Your task to perform on an android device: Show me productivity apps on the Play Store Image 0: 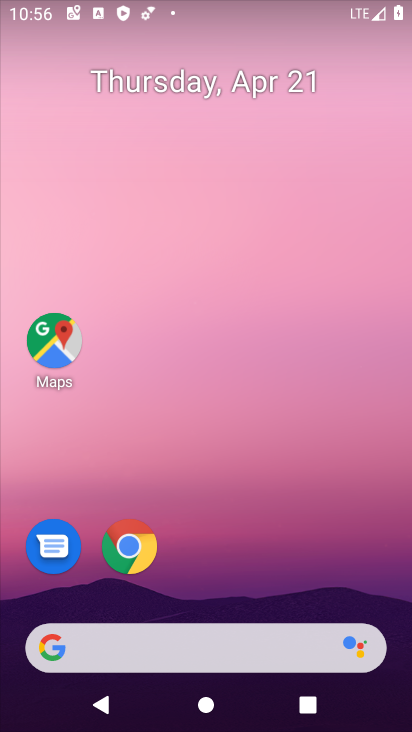
Step 0: drag from (378, 604) to (280, 73)
Your task to perform on an android device: Show me productivity apps on the Play Store Image 1: 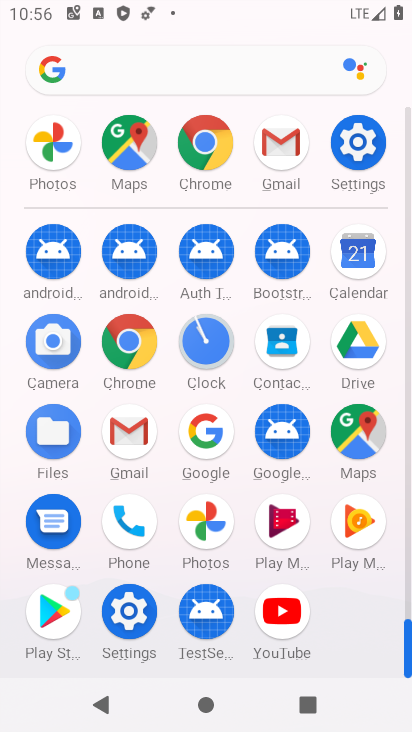
Step 1: click (54, 608)
Your task to perform on an android device: Show me productivity apps on the Play Store Image 2: 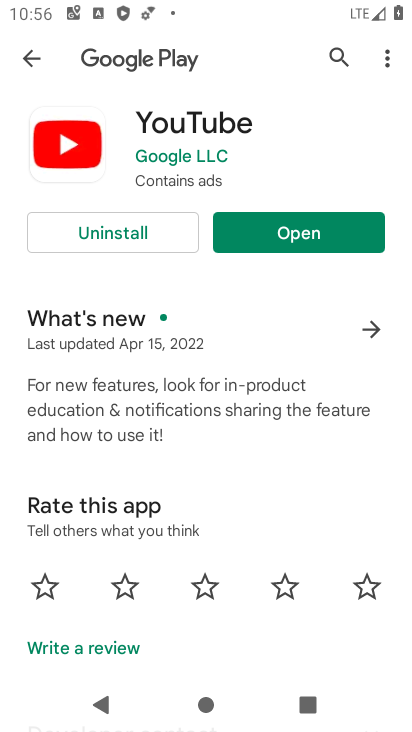
Step 2: press back button
Your task to perform on an android device: Show me productivity apps on the Play Store Image 3: 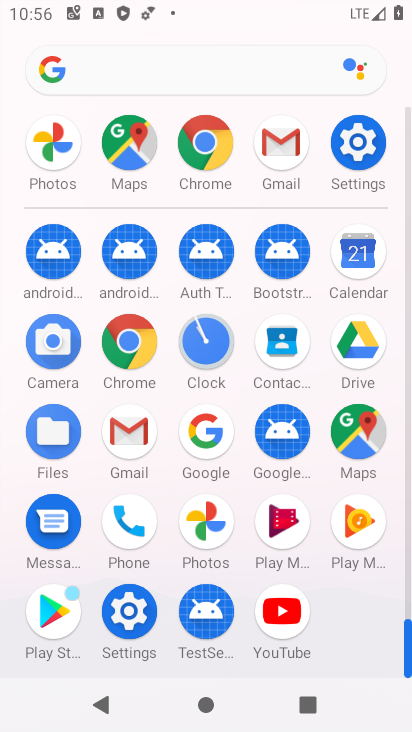
Step 3: click (55, 613)
Your task to perform on an android device: Show me productivity apps on the Play Store Image 4: 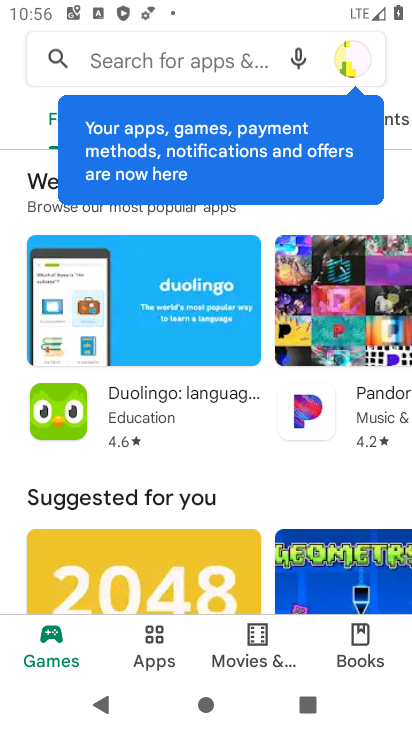
Step 4: drag from (279, 498) to (299, 142)
Your task to perform on an android device: Show me productivity apps on the Play Store Image 5: 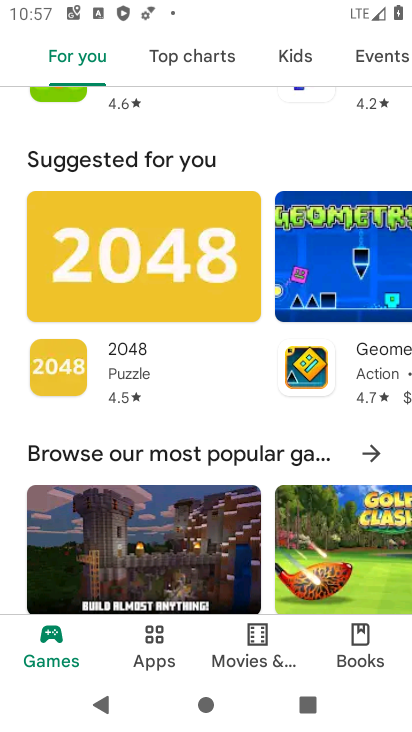
Step 5: drag from (265, 501) to (268, 109)
Your task to perform on an android device: Show me productivity apps on the Play Store Image 6: 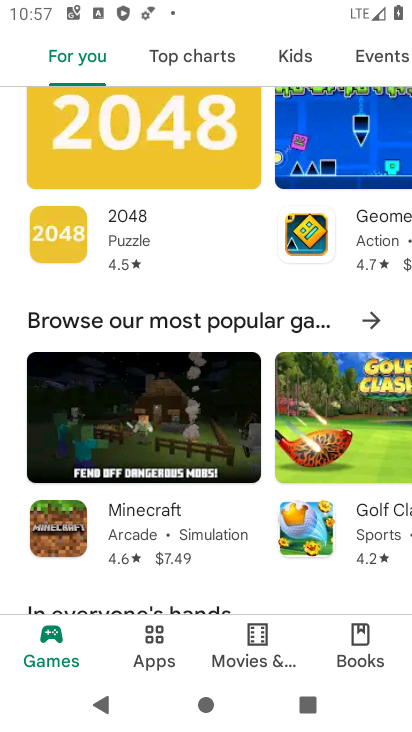
Step 6: click (159, 638)
Your task to perform on an android device: Show me productivity apps on the Play Store Image 7: 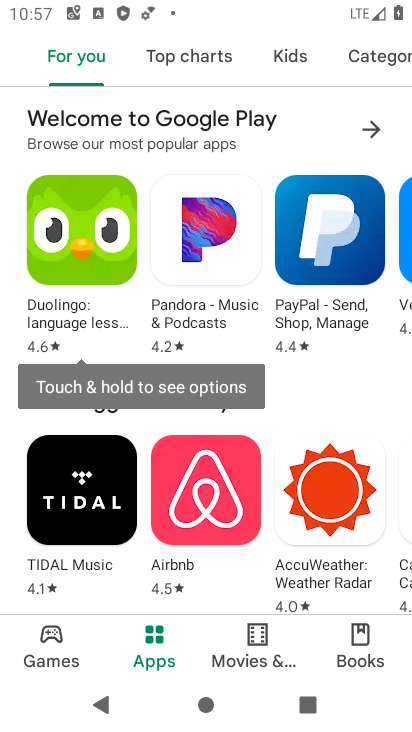
Step 7: click (385, 54)
Your task to perform on an android device: Show me productivity apps on the Play Store Image 8: 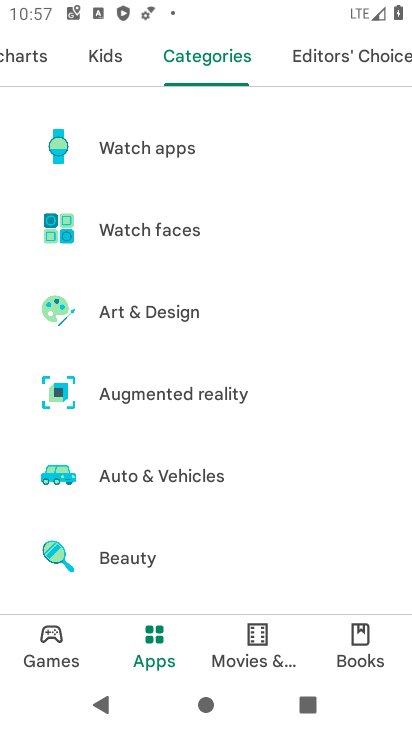
Step 8: drag from (252, 526) to (283, 79)
Your task to perform on an android device: Show me productivity apps on the Play Store Image 9: 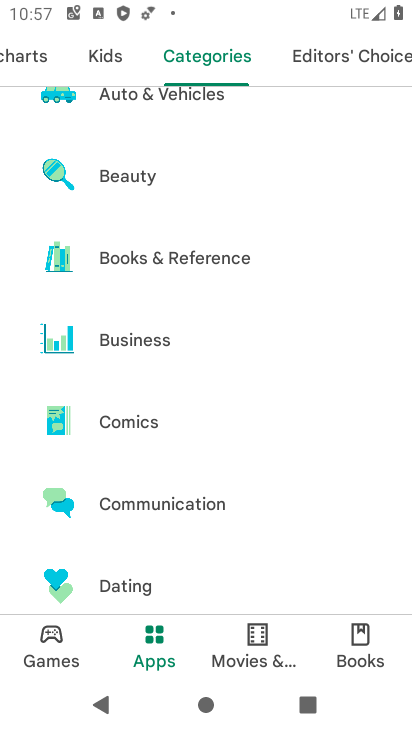
Step 9: drag from (258, 543) to (236, 203)
Your task to perform on an android device: Show me productivity apps on the Play Store Image 10: 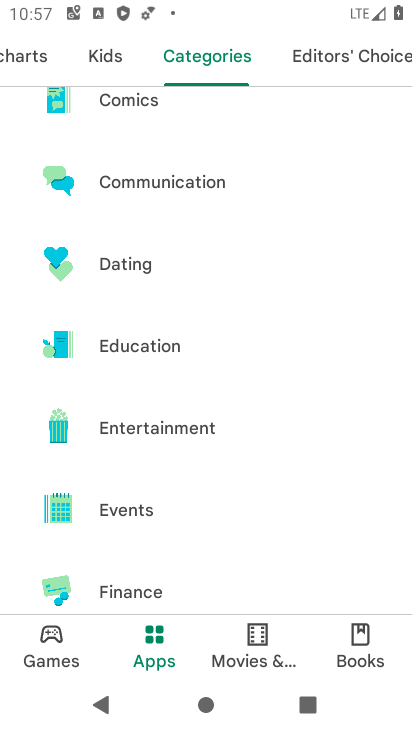
Step 10: drag from (188, 519) to (315, 175)
Your task to perform on an android device: Show me productivity apps on the Play Store Image 11: 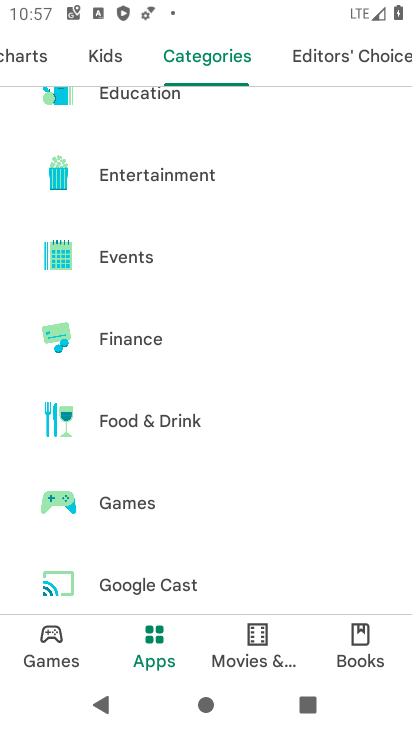
Step 11: drag from (242, 526) to (257, 146)
Your task to perform on an android device: Show me productivity apps on the Play Store Image 12: 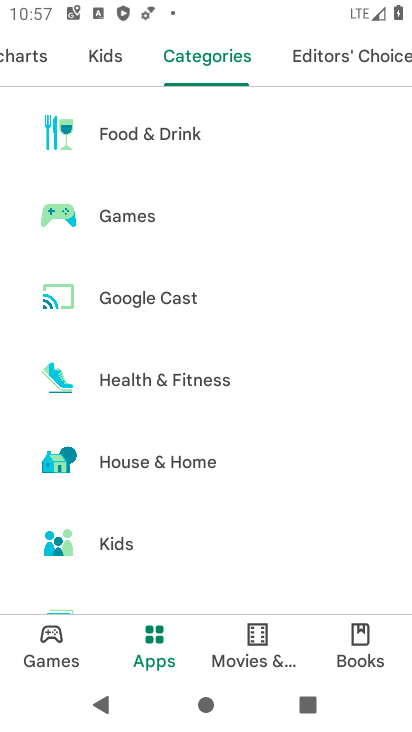
Step 12: drag from (256, 531) to (230, 213)
Your task to perform on an android device: Show me productivity apps on the Play Store Image 13: 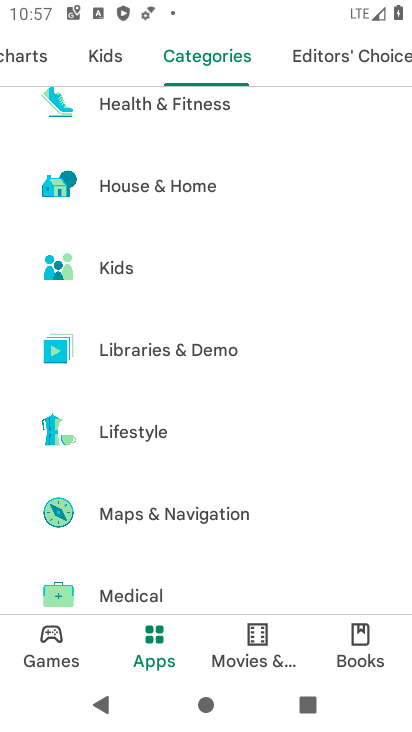
Step 13: drag from (258, 534) to (271, 75)
Your task to perform on an android device: Show me productivity apps on the Play Store Image 14: 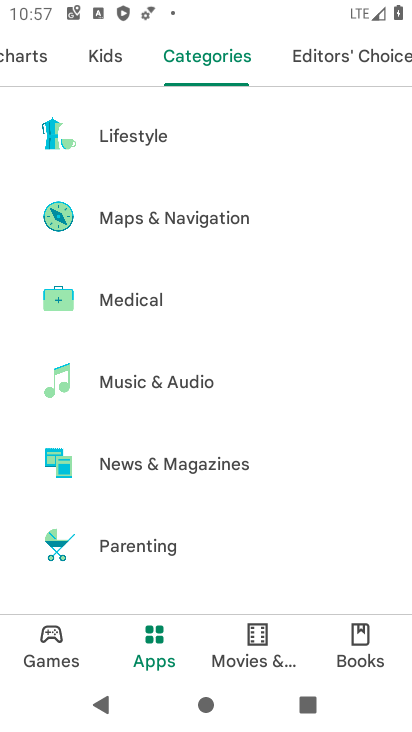
Step 14: drag from (272, 554) to (297, 91)
Your task to perform on an android device: Show me productivity apps on the Play Store Image 15: 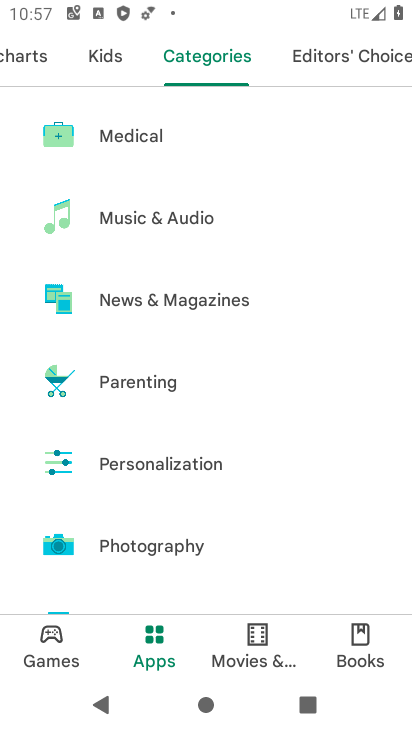
Step 15: drag from (253, 542) to (288, 214)
Your task to perform on an android device: Show me productivity apps on the Play Store Image 16: 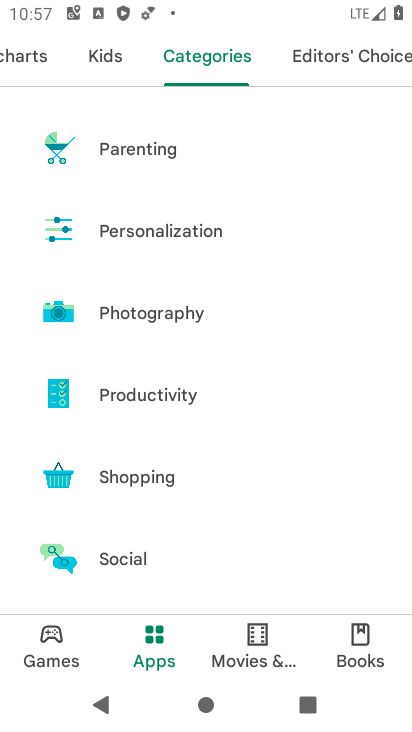
Step 16: click (126, 396)
Your task to perform on an android device: Show me productivity apps on the Play Store Image 17: 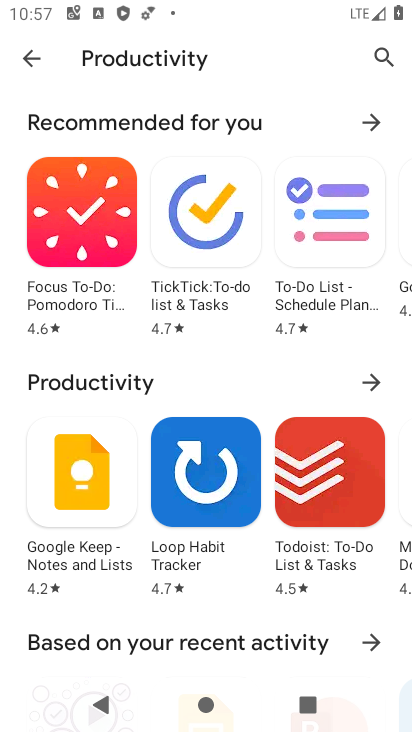
Step 17: task complete